Your task to perform on an android device: Show me productivity apps on the Play Store Image 0: 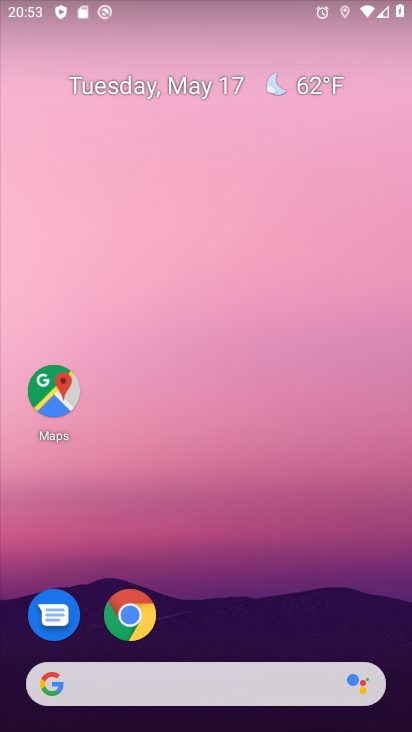
Step 0: drag from (230, 499) to (168, 52)
Your task to perform on an android device: Show me productivity apps on the Play Store Image 1: 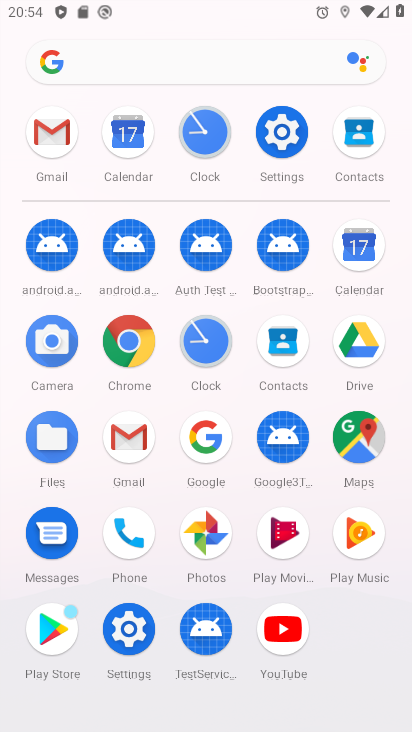
Step 1: click (42, 631)
Your task to perform on an android device: Show me productivity apps on the Play Store Image 2: 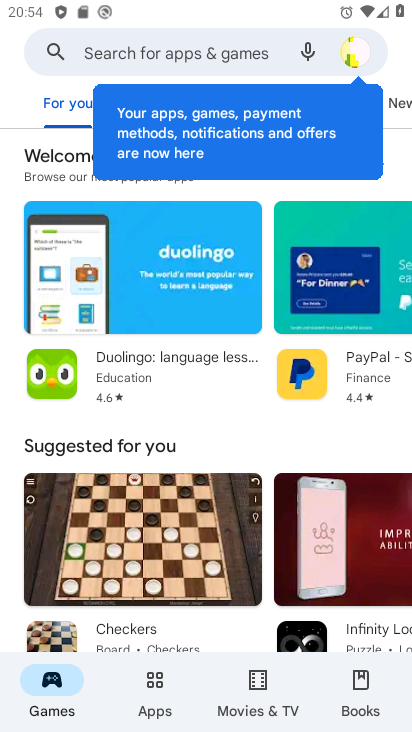
Step 2: click (170, 57)
Your task to perform on an android device: Show me productivity apps on the Play Store Image 3: 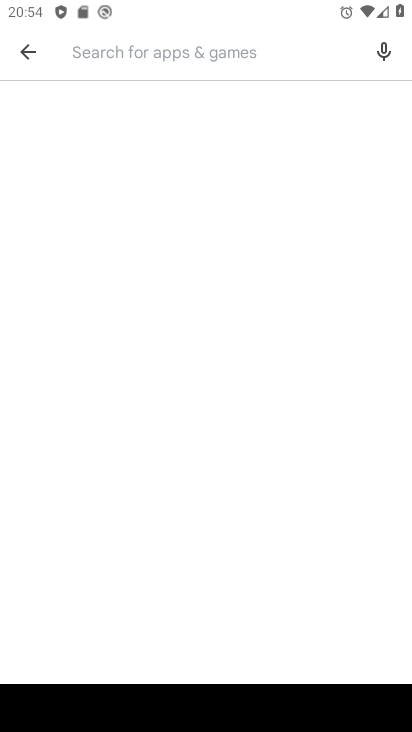
Step 3: type " productivity apps"
Your task to perform on an android device: Show me productivity apps on the Play Store Image 4: 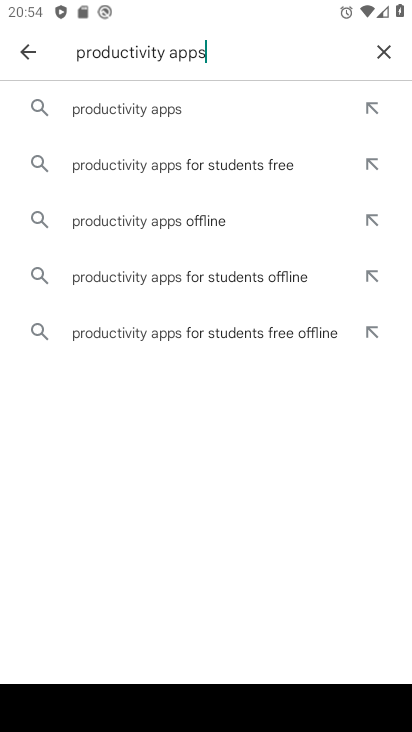
Step 4: click (123, 97)
Your task to perform on an android device: Show me productivity apps on the Play Store Image 5: 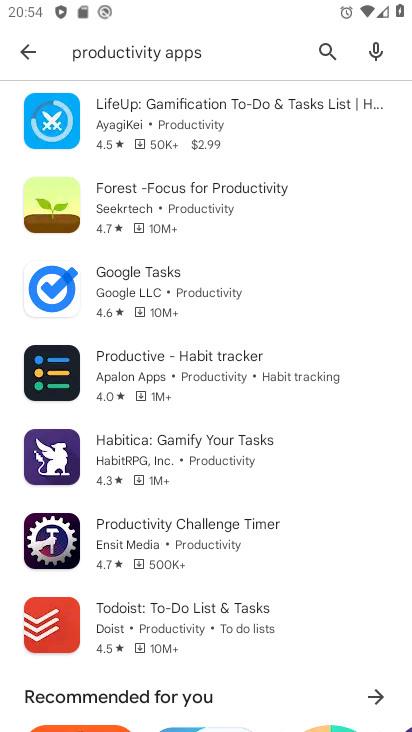
Step 5: task complete